Your task to perform on an android device: What's the weather going to be tomorrow? Image 0: 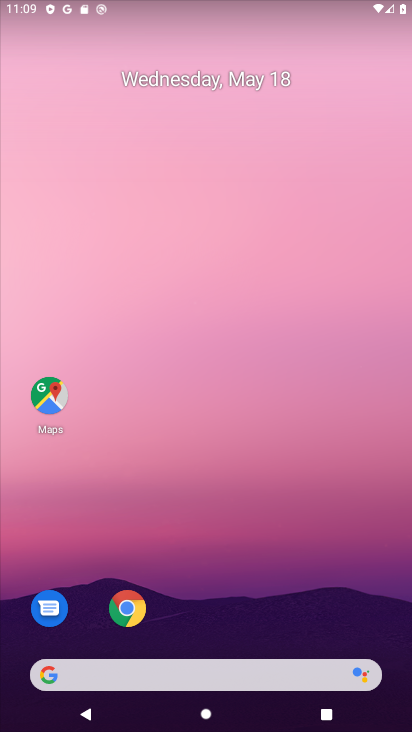
Step 0: click (133, 612)
Your task to perform on an android device: What's the weather going to be tomorrow? Image 1: 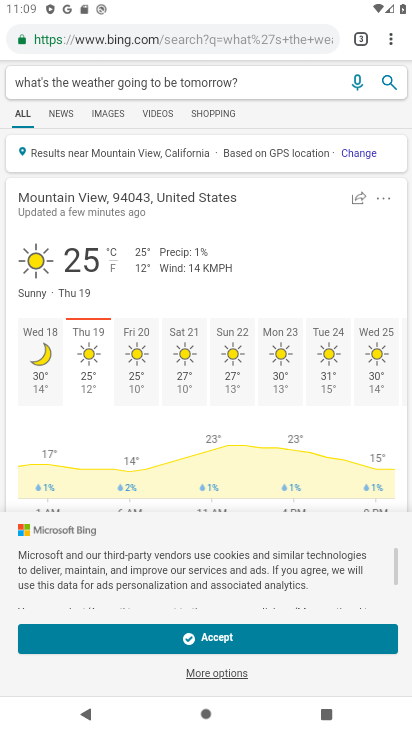
Step 1: click (126, 369)
Your task to perform on an android device: What's the weather going to be tomorrow? Image 2: 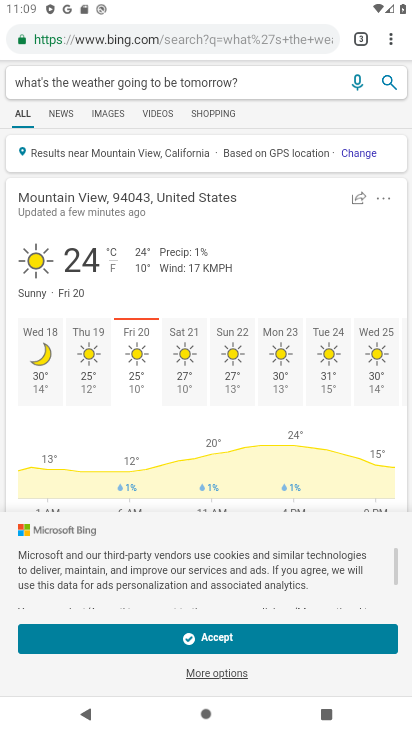
Step 2: task complete